Your task to perform on an android device: Search for "asus rog" on walmart.com, select the first entry, add it to the cart, then select checkout. Image 0: 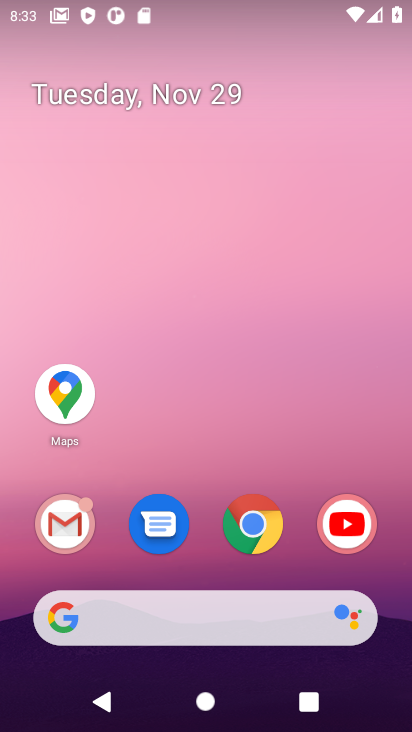
Step 0: click (250, 530)
Your task to perform on an android device: Search for "asus rog" on walmart.com, select the first entry, add it to the cart, then select checkout. Image 1: 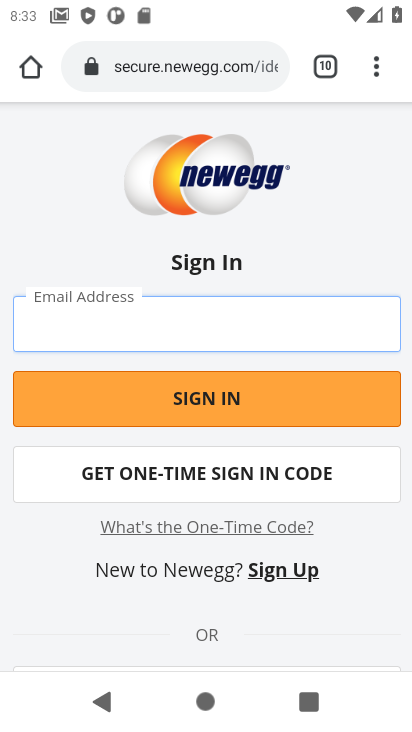
Step 1: click (182, 63)
Your task to perform on an android device: Search for "asus rog" on walmart.com, select the first entry, add it to the cart, then select checkout. Image 2: 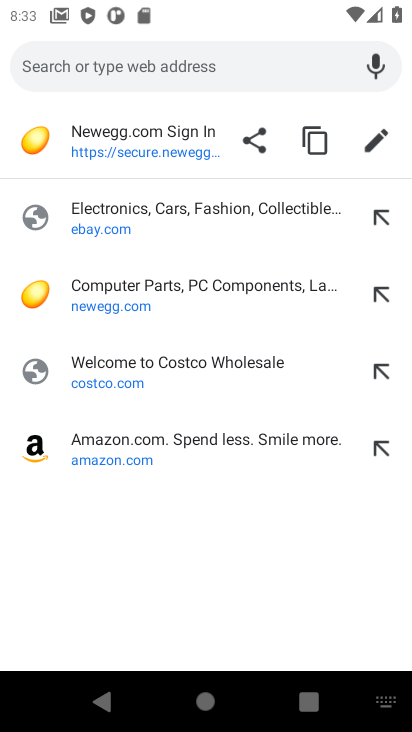
Step 2: type "walmart.com"
Your task to perform on an android device: Search for "asus rog" on walmart.com, select the first entry, add it to the cart, then select checkout. Image 3: 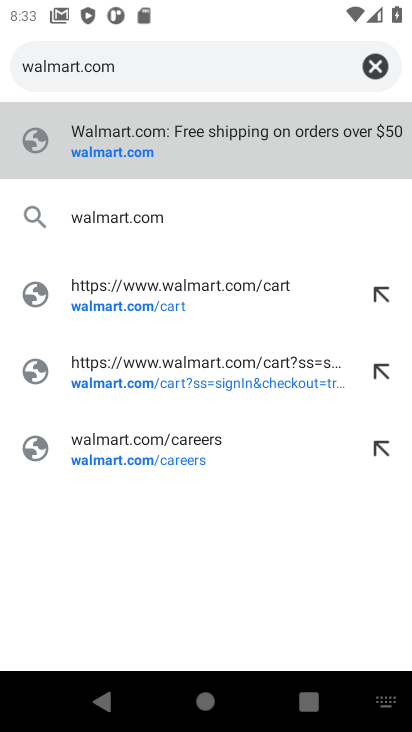
Step 3: click (115, 155)
Your task to perform on an android device: Search for "asus rog" on walmart.com, select the first entry, add it to the cart, then select checkout. Image 4: 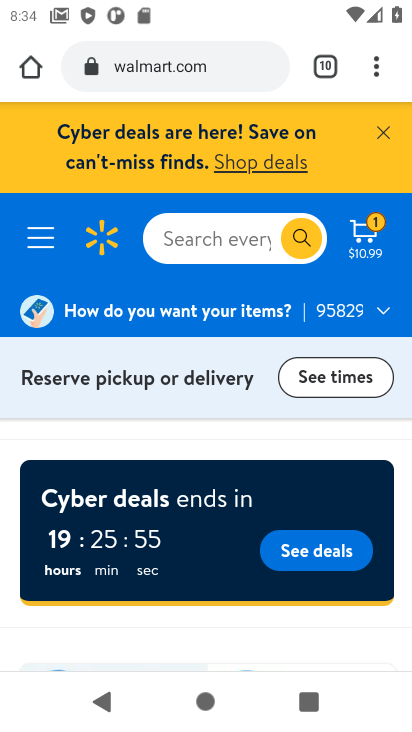
Step 4: click (181, 237)
Your task to perform on an android device: Search for "asus rog" on walmart.com, select the first entry, add it to the cart, then select checkout. Image 5: 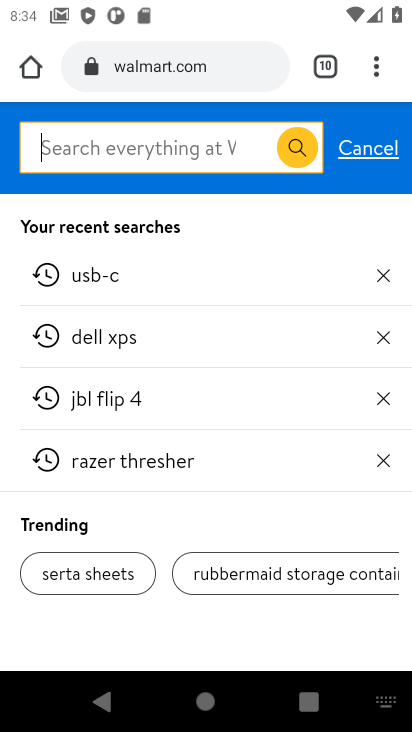
Step 5: type "asus rog"
Your task to perform on an android device: Search for "asus rog" on walmart.com, select the first entry, add it to the cart, then select checkout. Image 6: 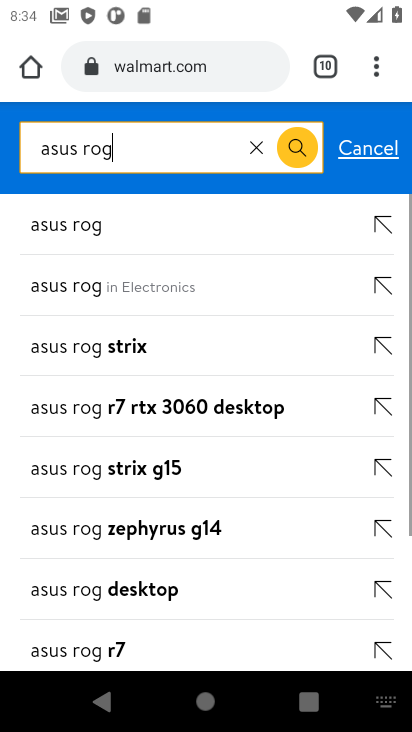
Step 6: click (66, 228)
Your task to perform on an android device: Search for "asus rog" on walmart.com, select the first entry, add it to the cart, then select checkout. Image 7: 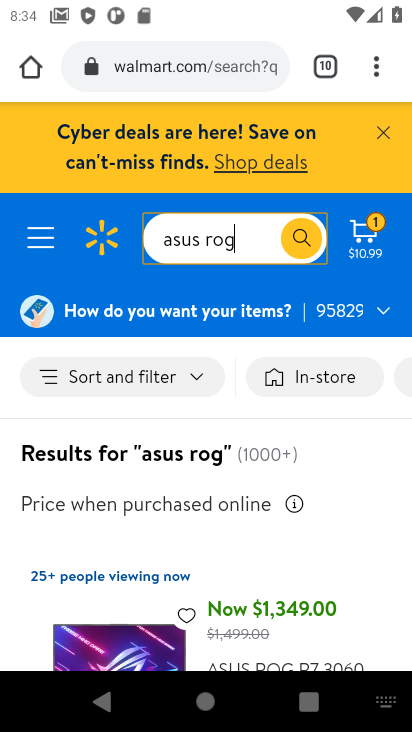
Step 7: drag from (271, 550) to (246, 300)
Your task to perform on an android device: Search for "asus rog" on walmart.com, select the first entry, add it to the cart, then select checkout. Image 8: 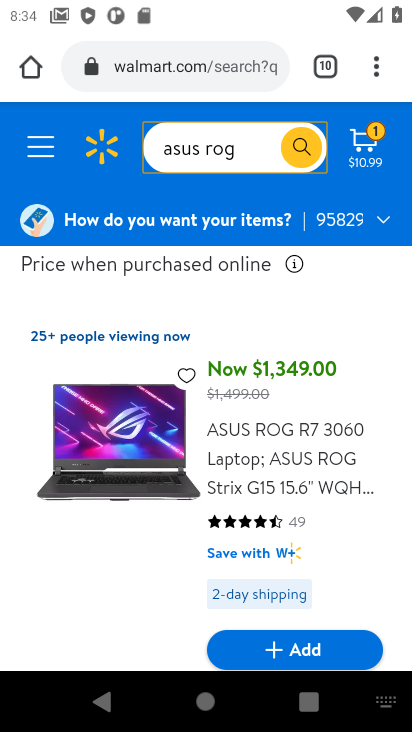
Step 8: click (282, 653)
Your task to perform on an android device: Search for "asus rog" on walmart.com, select the first entry, add it to the cart, then select checkout. Image 9: 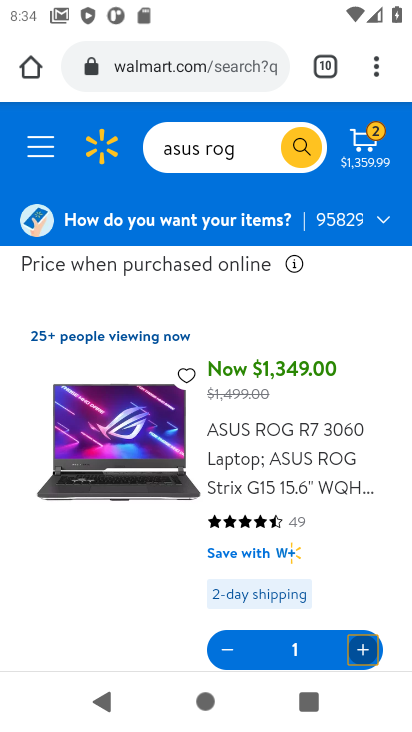
Step 9: click (369, 152)
Your task to perform on an android device: Search for "asus rog" on walmart.com, select the first entry, add it to the cart, then select checkout. Image 10: 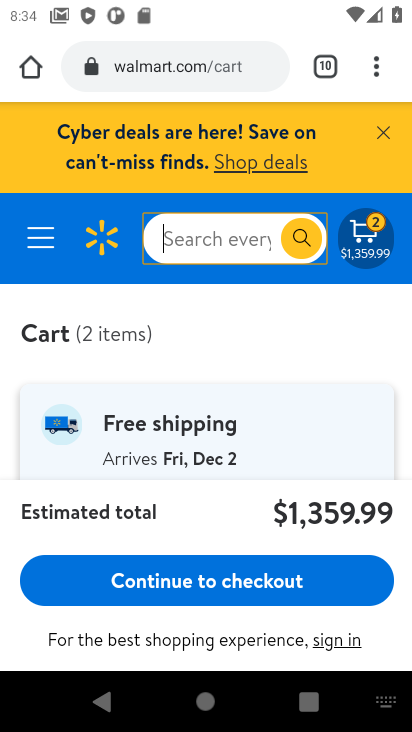
Step 10: click (205, 582)
Your task to perform on an android device: Search for "asus rog" on walmart.com, select the first entry, add it to the cart, then select checkout. Image 11: 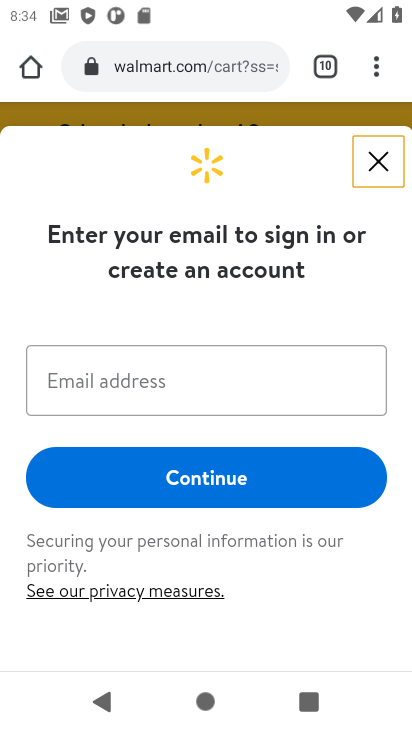
Step 11: task complete